Your task to perform on an android device: change the upload size in google photos Image 0: 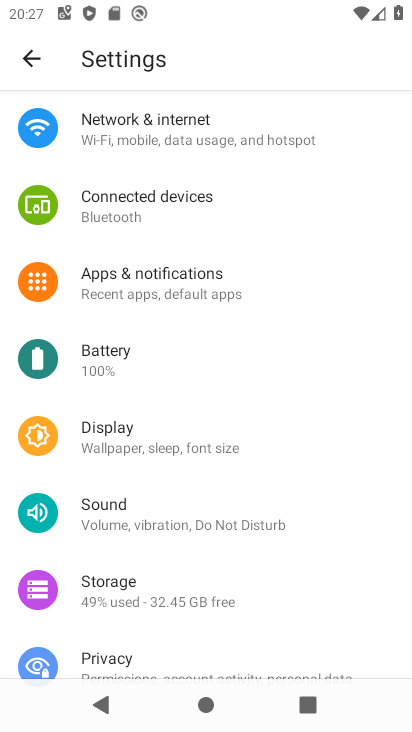
Step 0: press home button
Your task to perform on an android device: change the upload size in google photos Image 1: 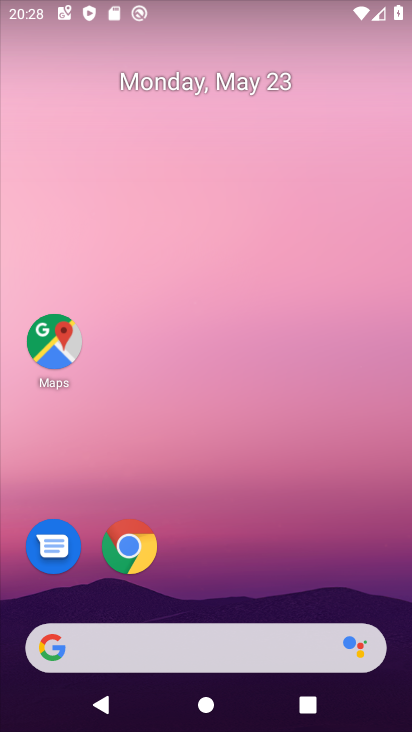
Step 1: drag from (380, 575) to (353, 178)
Your task to perform on an android device: change the upload size in google photos Image 2: 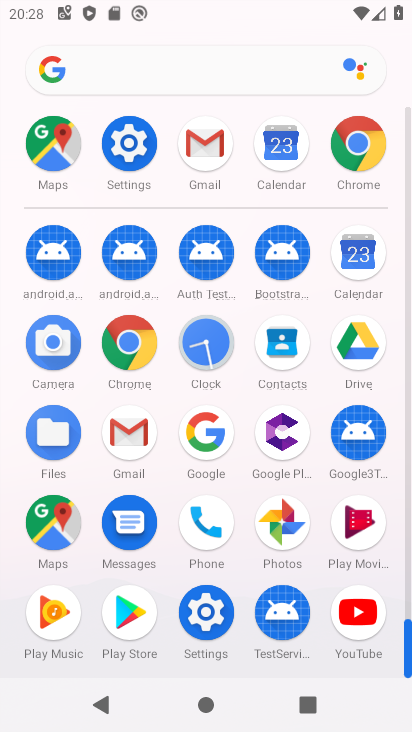
Step 2: click (273, 537)
Your task to perform on an android device: change the upload size in google photos Image 3: 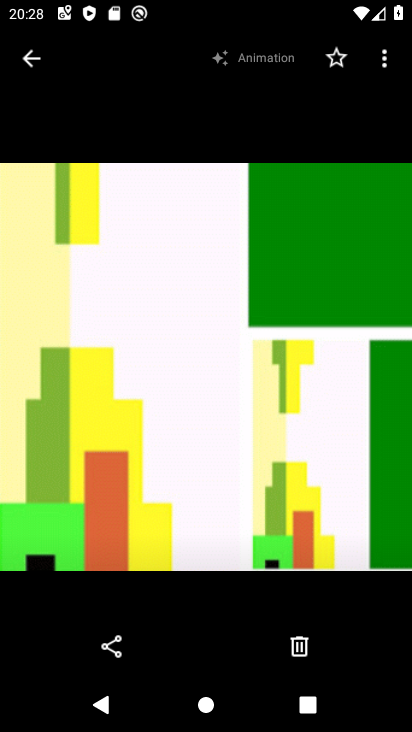
Step 3: click (34, 62)
Your task to perform on an android device: change the upload size in google photos Image 4: 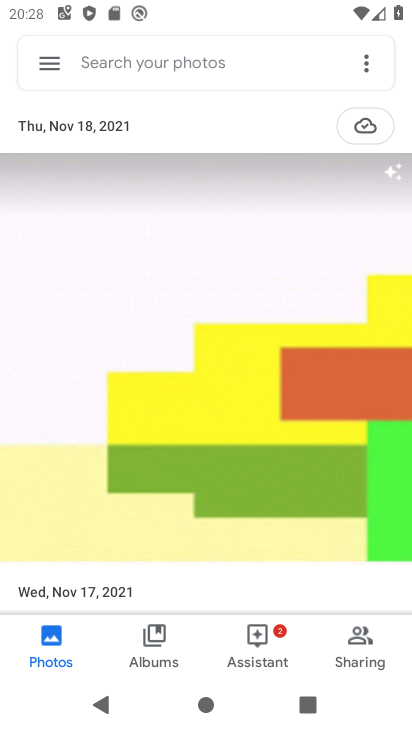
Step 4: click (56, 56)
Your task to perform on an android device: change the upload size in google photos Image 5: 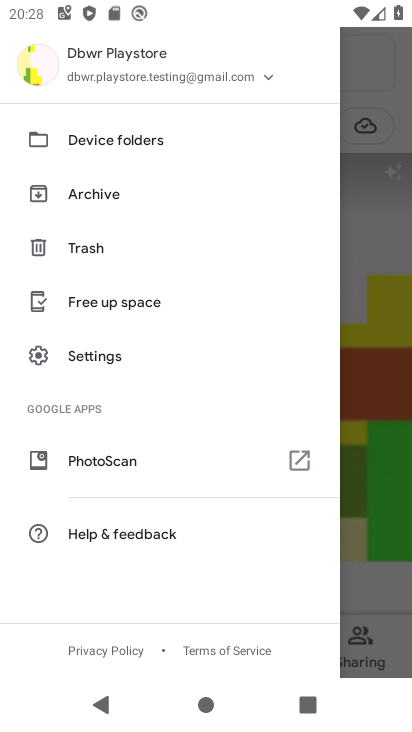
Step 5: drag from (241, 533) to (226, 357)
Your task to perform on an android device: change the upload size in google photos Image 6: 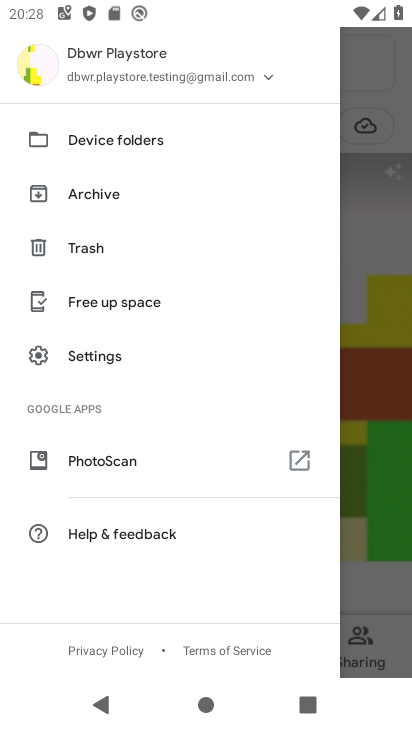
Step 6: drag from (240, 257) to (225, 359)
Your task to perform on an android device: change the upload size in google photos Image 7: 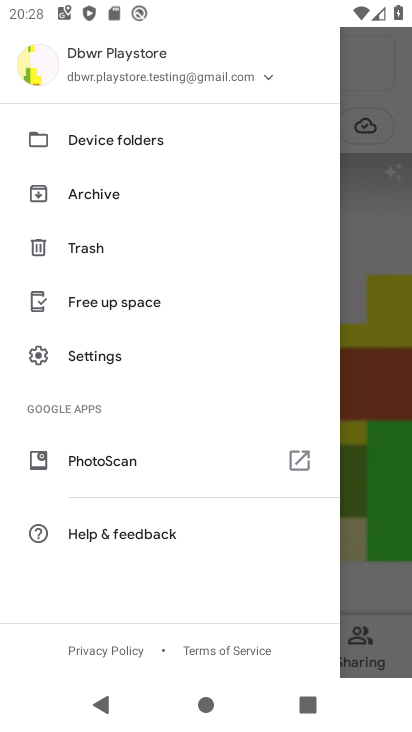
Step 7: click (119, 360)
Your task to perform on an android device: change the upload size in google photos Image 8: 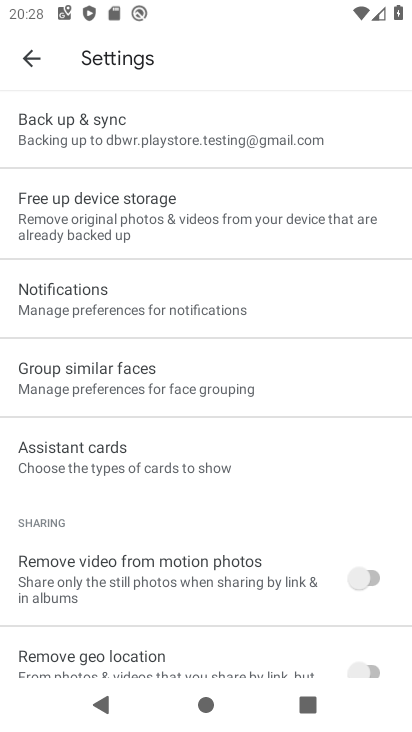
Step 8: drag from (328, 507) to (329, 415)
Your task to perform on an android device: change the upload size in google photos Image 9: 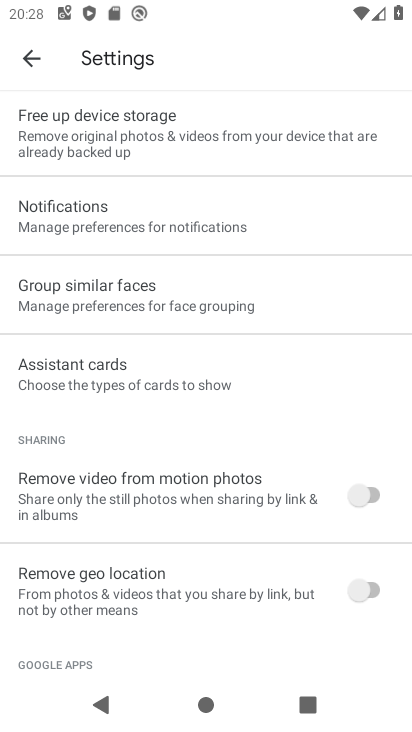
Step 9: drag from (319, 576) to (324, 468)
Your task to perform on an android device: change the upload size in google photos Image 10: 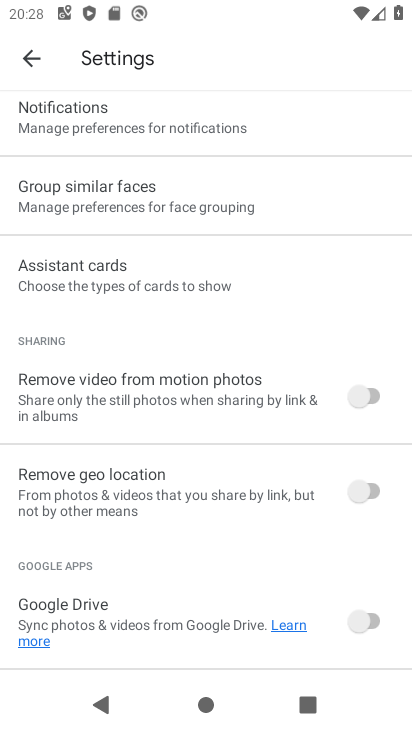
Step 10: drag from (309, 598) to (307, 491)
Your task to perform on an android device: change the upload size in google photos Image 11: 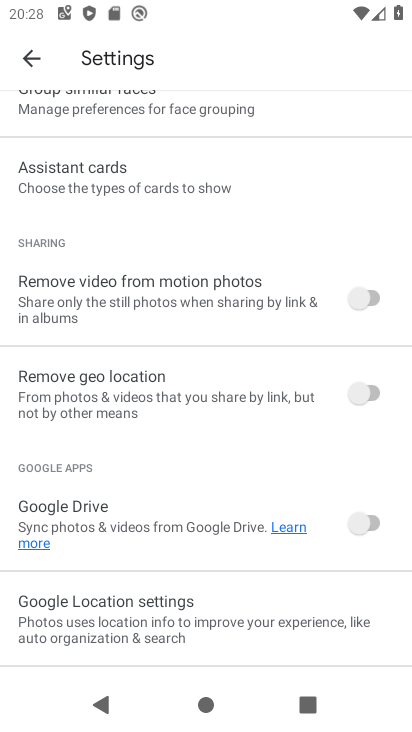
Step 11: drag from (320, 589) to (320, 497)
Your task to perform on an android device: change the upload size in google photos Image 12: 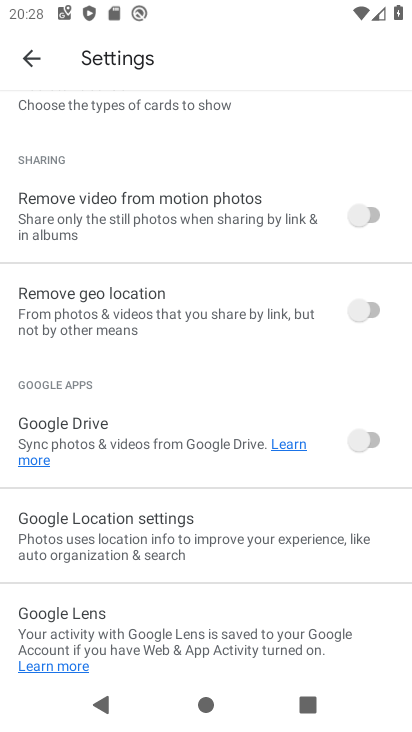
Step 12: drag from (317, 604) to (320, 504)
Your task to perform on an android device: change the upload size in google photos Image 13: 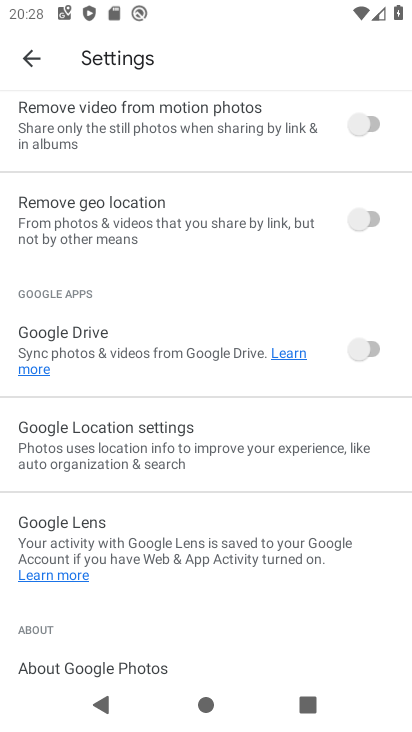
Step 13: drag from (335, 618) to (339, 542)
Your task to perform on an android device: change the upload size in google photos Image 14: 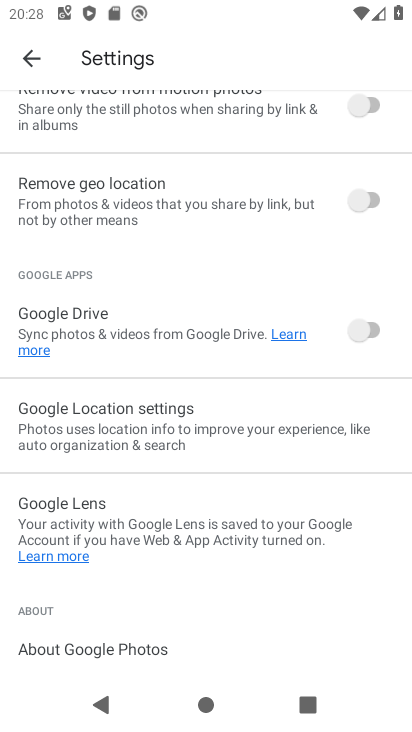
Step 14: drag from (358, 463) to (355, 568)
Your task to perform on an android device: change the upload size in google photos Image 15: 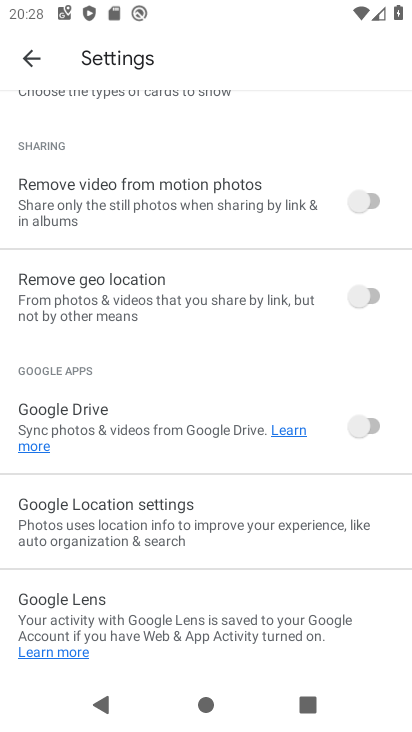
Step 15: drag from (335, 408) to (337, 501)
Your task to perform on an android device: change the upload size in google photos Image 16: 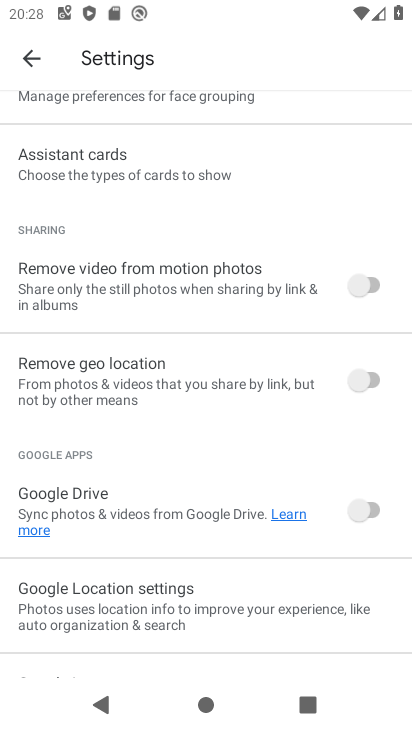
Step 16: drag from (321, 356) to (323, 465)
Your task to perform on an android device: change the upload size in google photos Image 17: 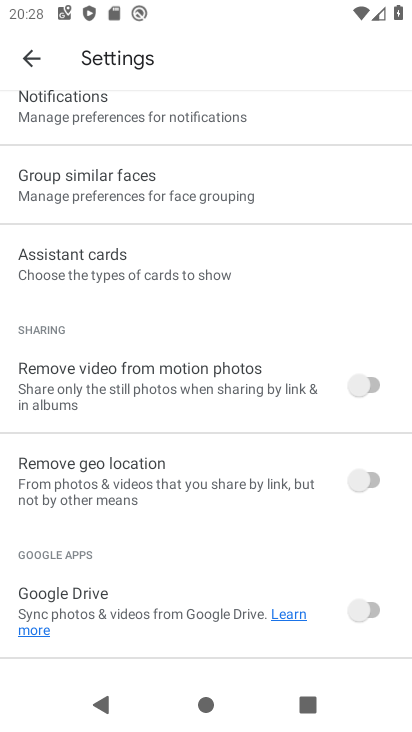
Step 17: drag from (322, 346) to (319, 447)
Your task to perform on an android device: change the upload size in google photos Image 18: 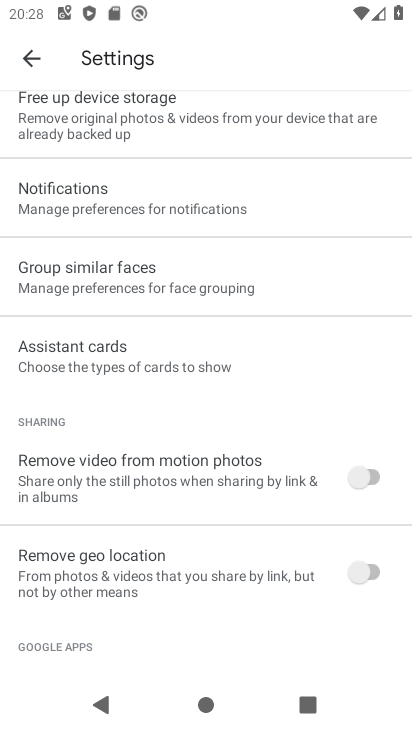
Step 18: drag from (306, 306) to (312, 395)
Your task to perform on an android device: change the upload size in google photos Image 19: 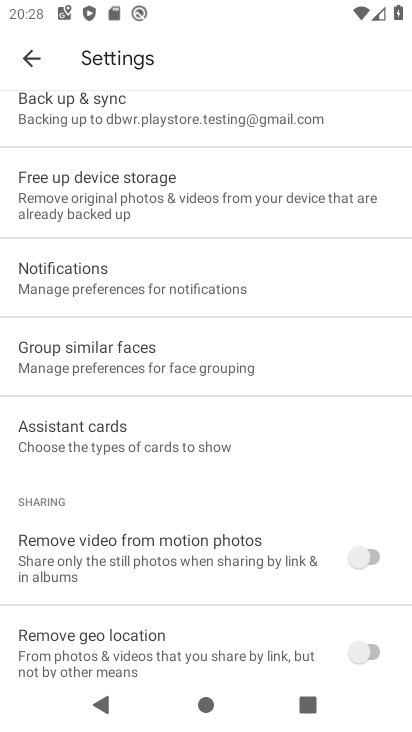
Step 19: drag from (309, 299) to (310, 393)
Your task to perform on an android device: change the upload size in google photos Image 20: 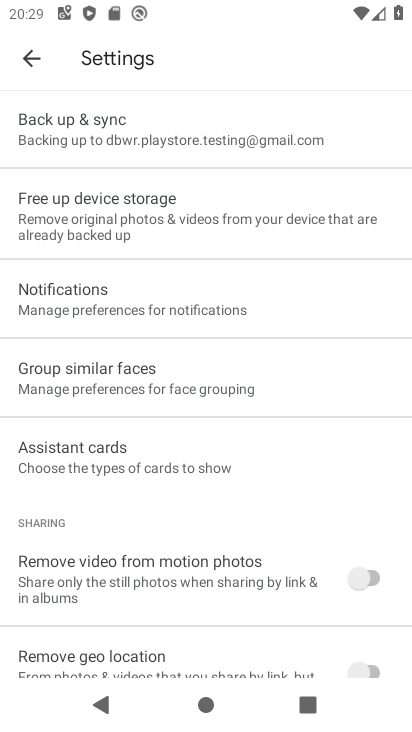
Step 20: click (260, 139)
Your task to perform on an android device: change the upload size in google photos Image 21: 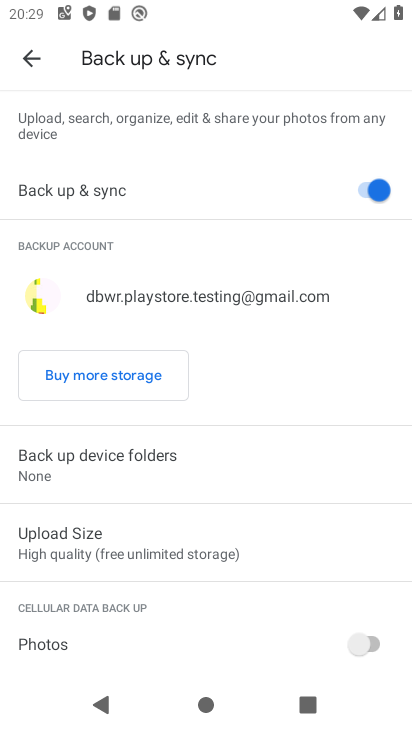
Step 21: click (213, 550)
Your task to perform on an android device: change the upload size in google photos Image 22: 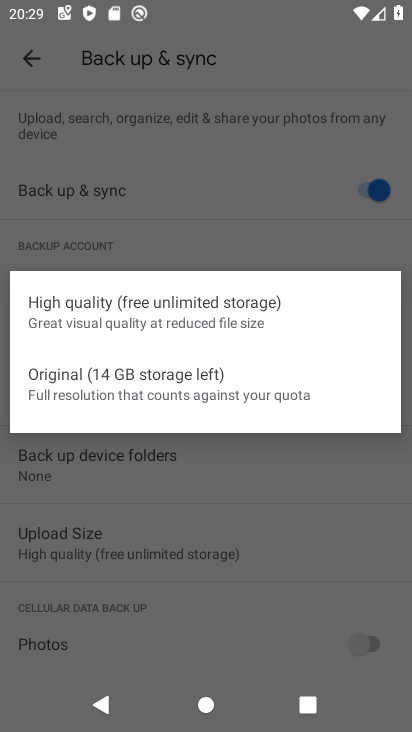
Step 22: click (161, 382)
Your task to perform on an android device: change the upload size in google photos Image 23: 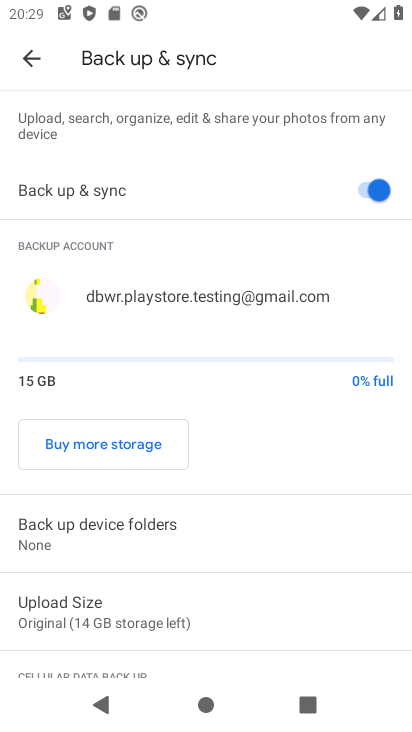
Step 23: task complete